Your task to perform on an android device: Install the Lyft app Image 0: 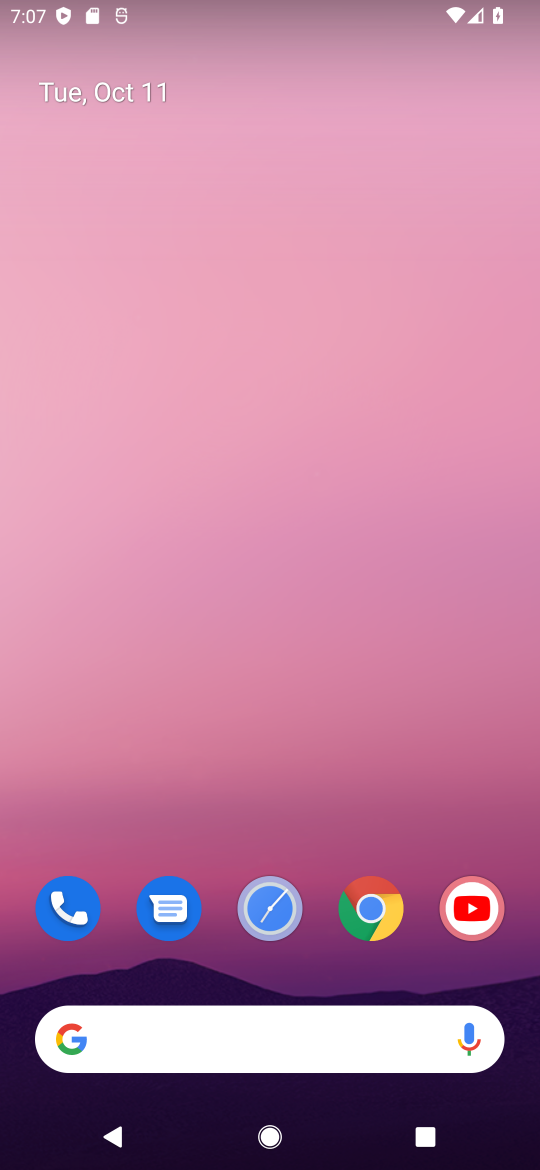
Step 0: drag from (300, 845) to (261, 198)
Your task to perform on an android device: Install the Lyft app Image 1: 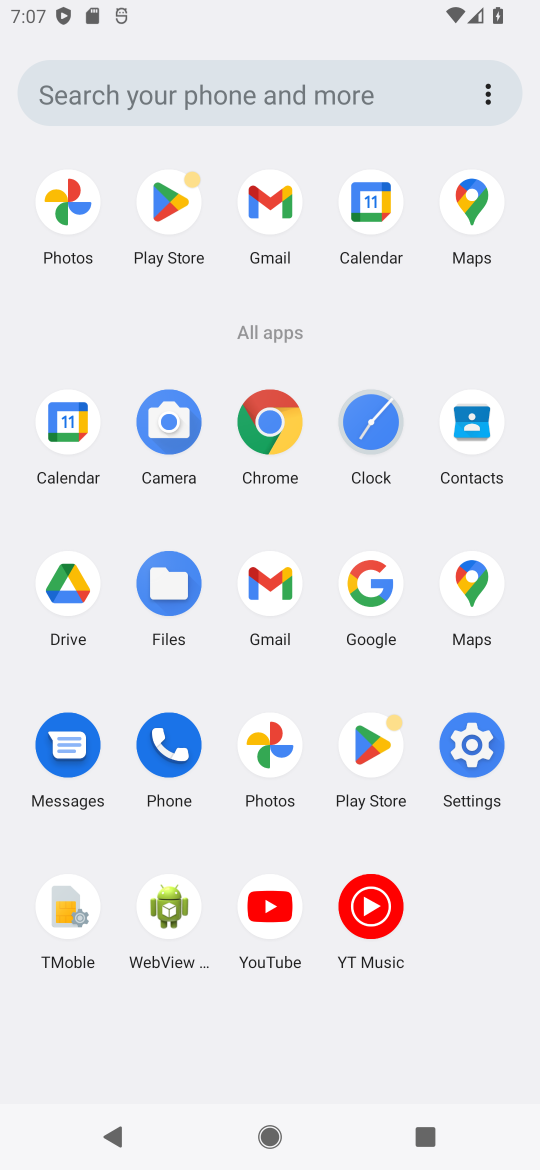
Step 1: click (158, 201)
Your task to perform on an android device: Install the Lyft app Image 2: 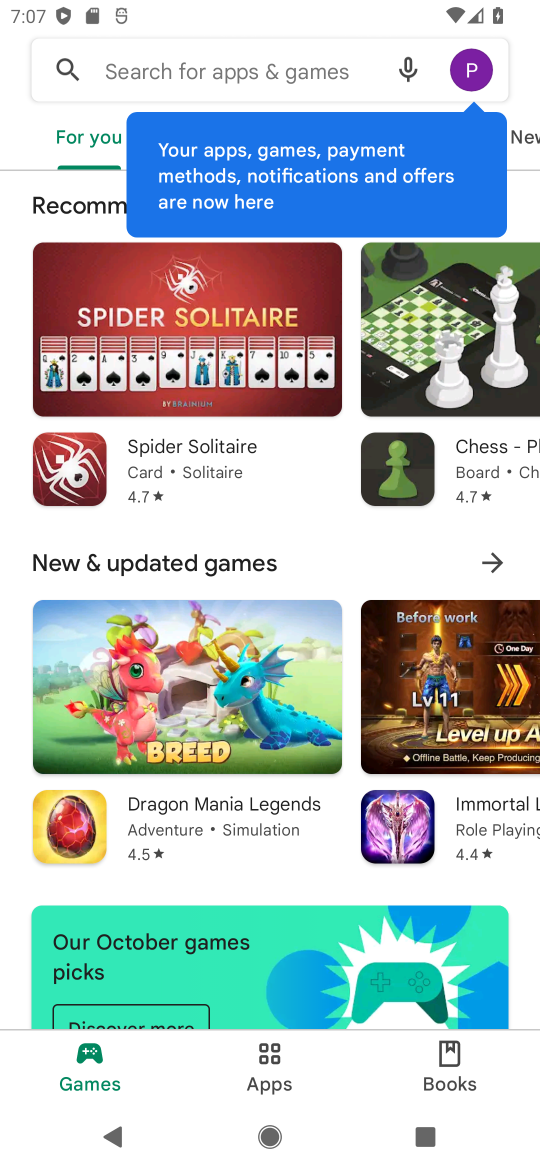
Step 2: click (140, 64)
Your task to perform on an android device: Install the Lyft app Image 3: 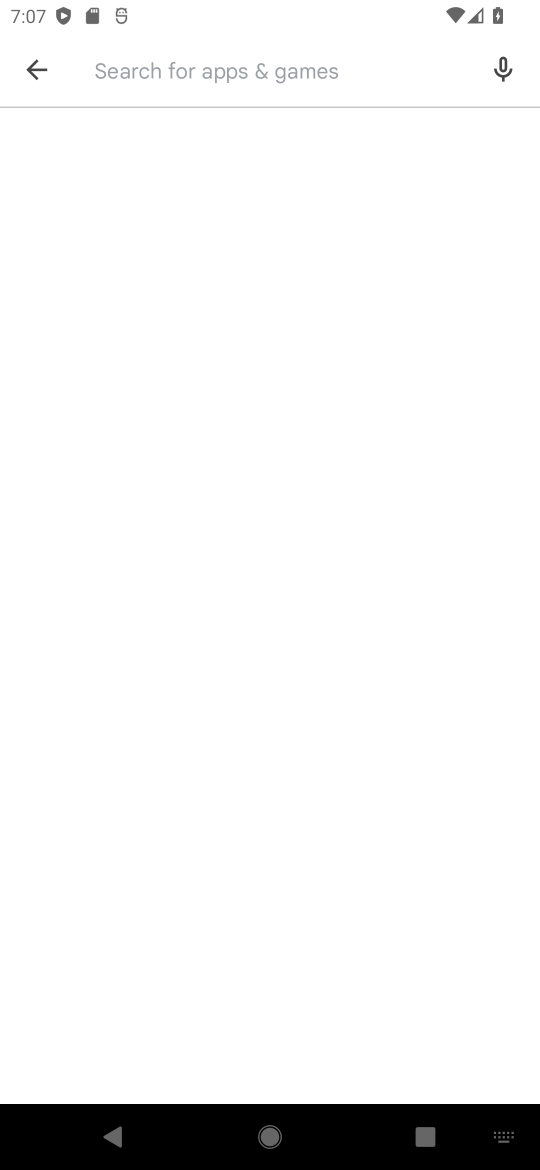
Step 3: type "lyft app"
Your task to perform on an android device: Install the Lyft app Image 4: 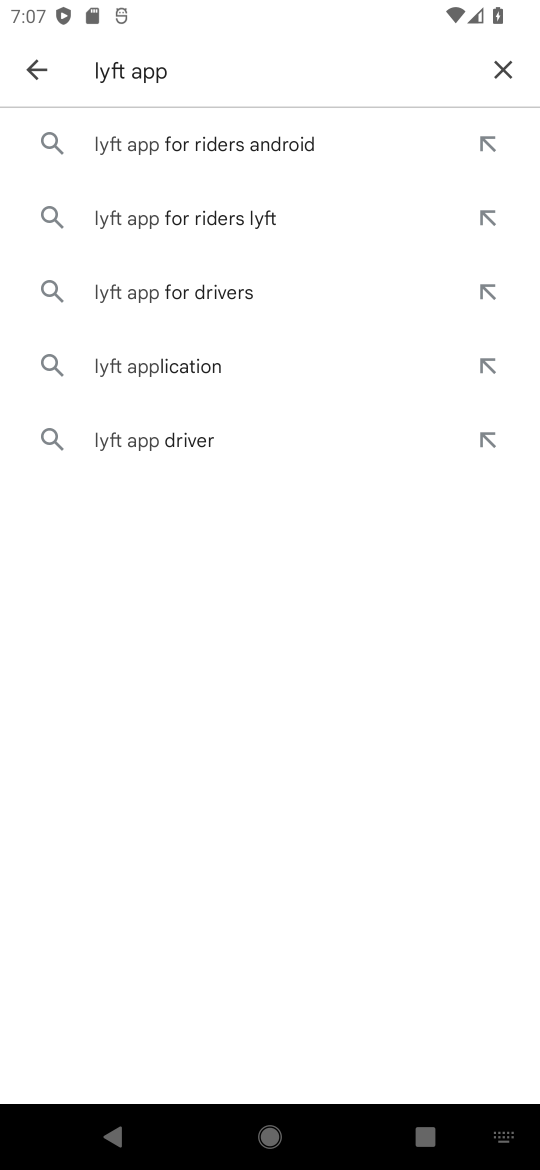
Step 4: click (141, 357)
Your task to perform on an android device: Install the Lyft app Image 5: 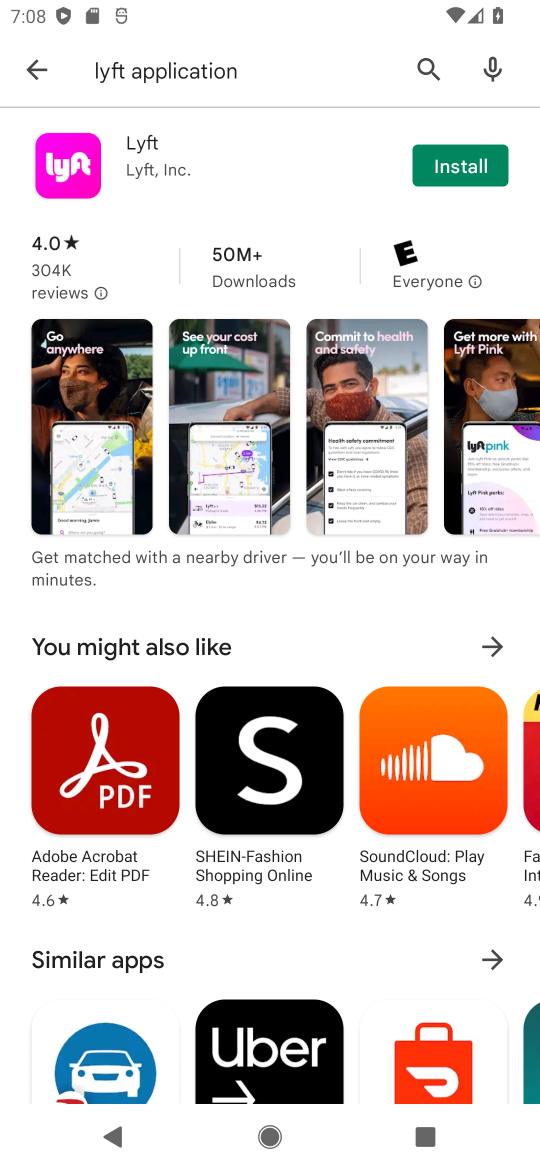
Step 5: click (446, 161)
Your task to perform on an android device: Install the Lyft app Image 6: 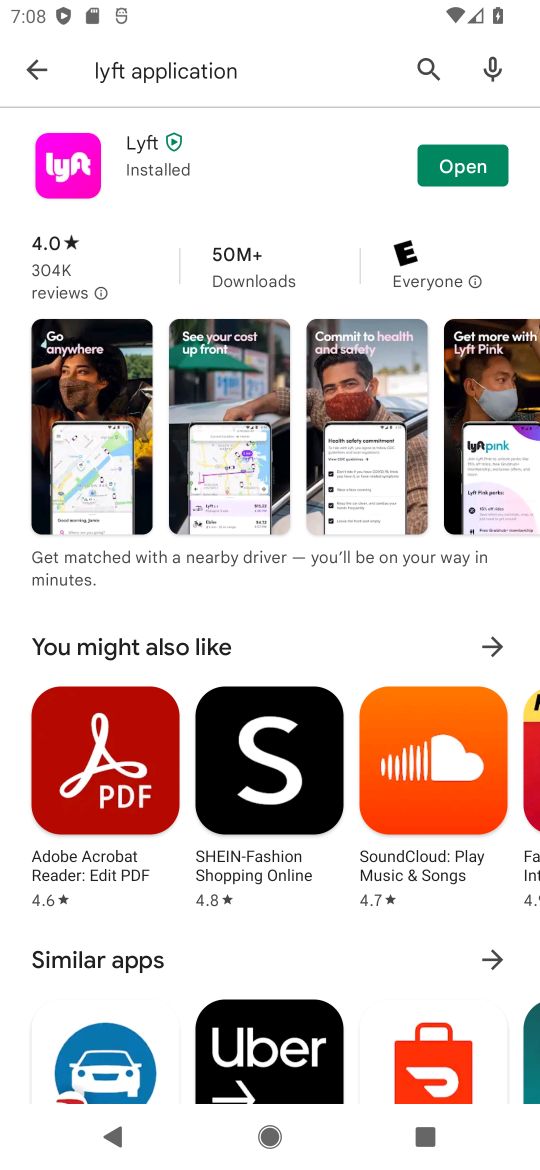
Step 6: task complete